Your task to perform on an android device: stop showing notifications on the lock screen Image 0: 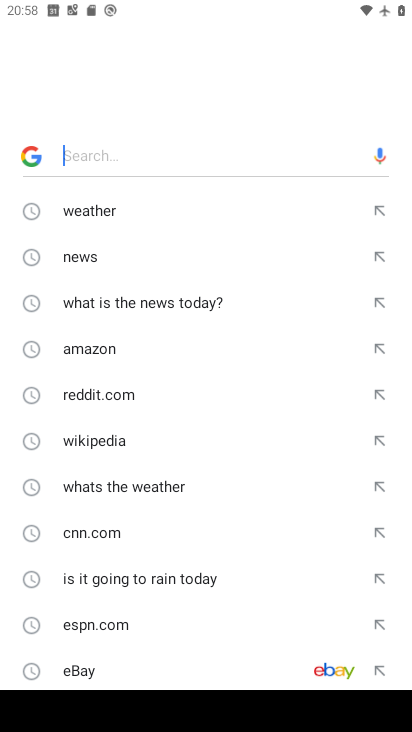
Step 0: press home button
Your task to perform on an android device: stop showing notifications on the lock screen Image 1: 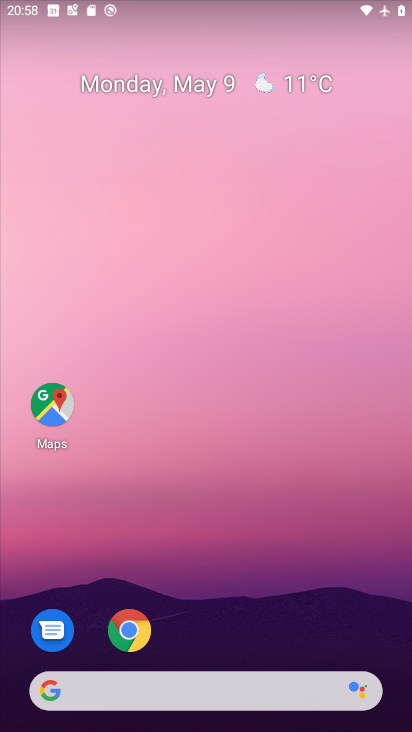
Step 1: drag from (240, 582) to (282, 113)
Your task to perform on an android device: stop showing notifications on the lock screen Image 2: 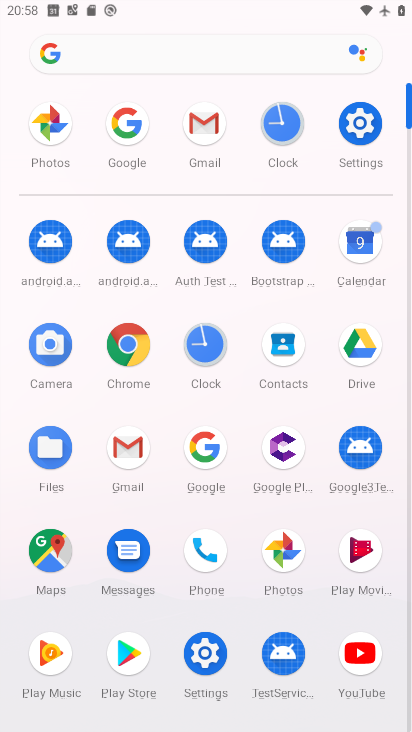
Step 2: click (359, 135)
Your task to perform on an android device: stop showing notifications on the lock screen Image 3: 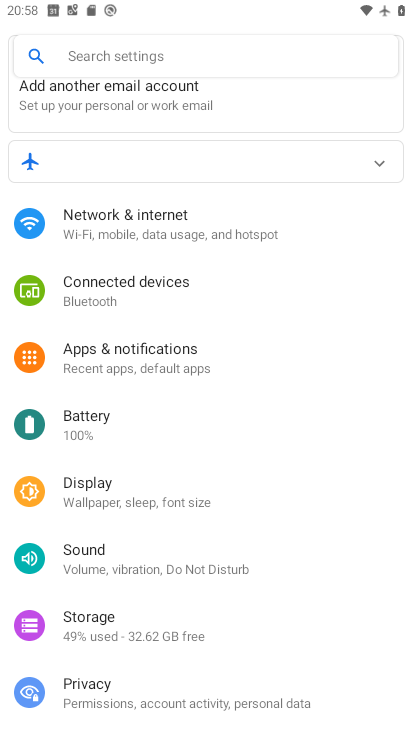
Step 3: click (221, 370)
Your task to perform on an android device: stop showing notifications on the lock screen Image 4: 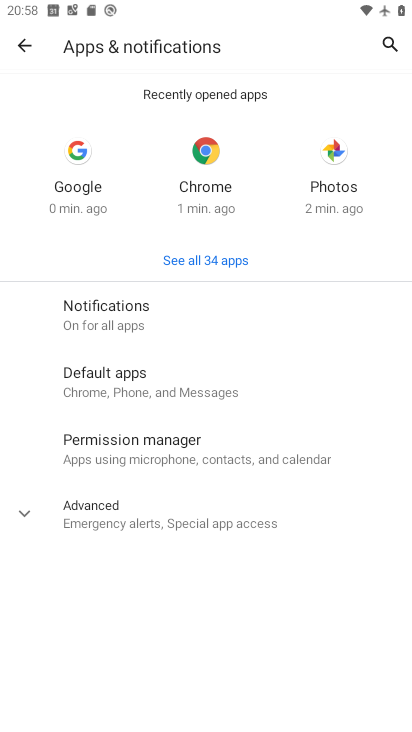
Step 4: click (163, 314)
Your task to perform on an android device: stop showing notifications on the lock screen Image 5: 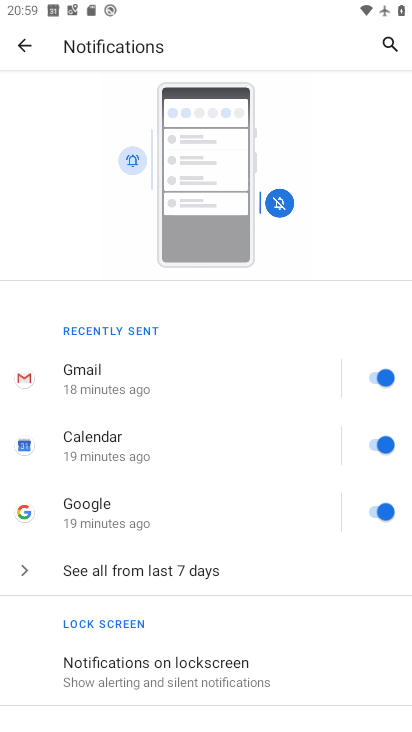
Step 5: click (157, 679)
Your task to perform on an android device: stop showing notifications on the lock screen Image 6: 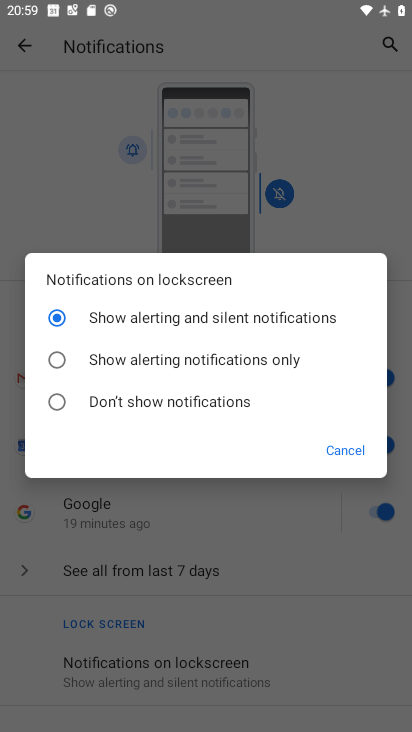
Step 6: click (123, 395)
Your task to perform on an android device: stop showing notifications on the lock screen Image 7: 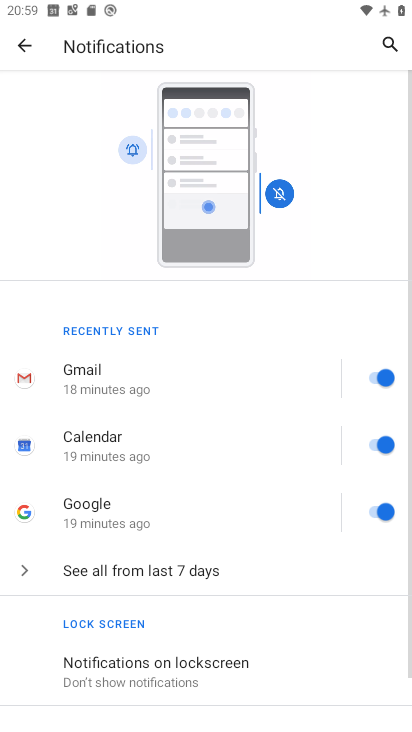
Step 7: task complete